Your task to perform on an android device: turn on location history Image 0: 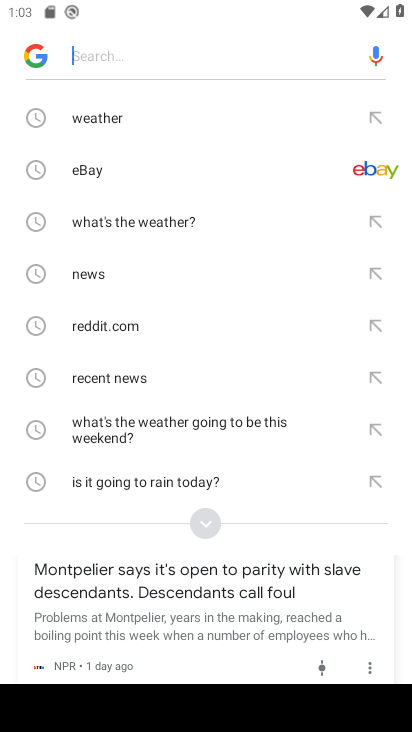
Step 0: press home button
Your task to perform on an android device: turn on location history Image 1: 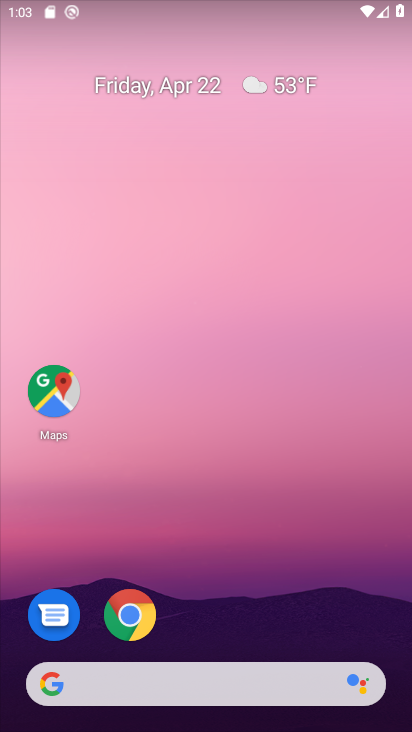
Step 1: drag from (149, 727) to (12, 178)
Your task to perform on an android device: turn on location history Image 2: 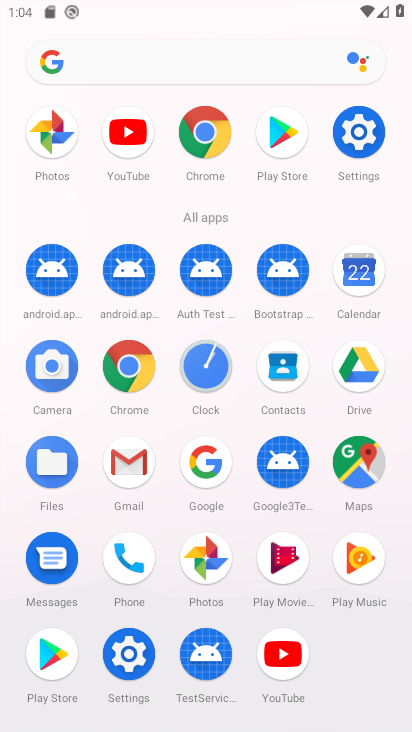
Step 2: click (365, 137)
Your task to perform on an android device: turn on location history Image 3: 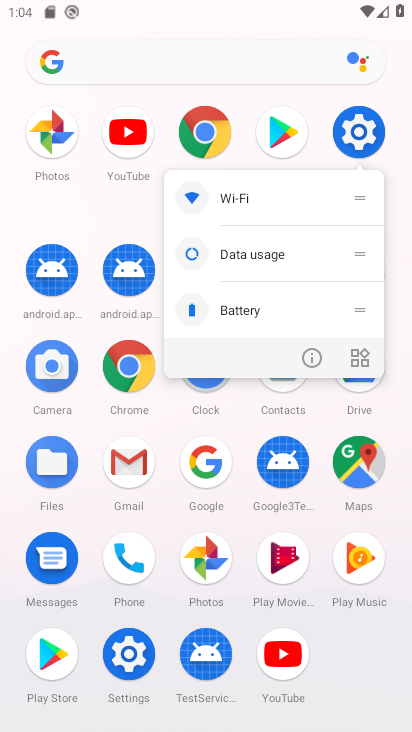
Step 3: click (366, 121)
Your task to perform on an android device: turn on location history Image 4: 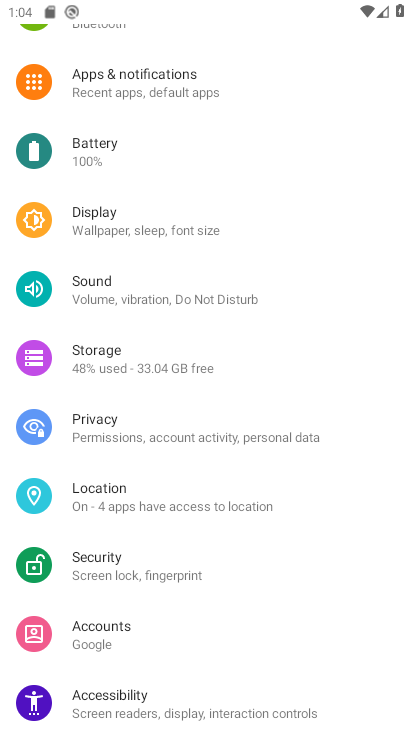
Step 4: click (366, 121)
Your task to perform on an android device: turn on location history Image 5: 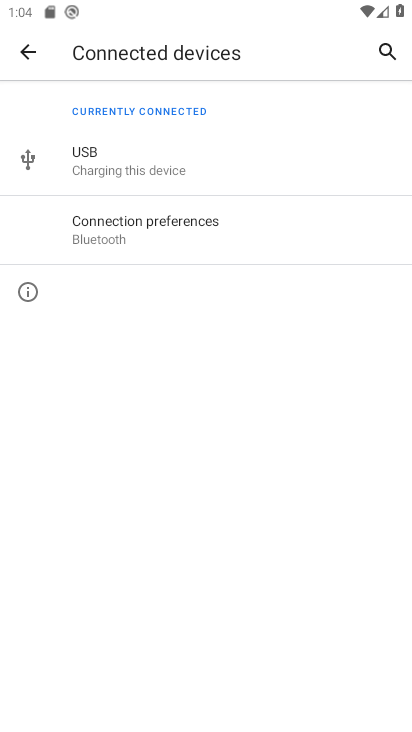
Step 5: press back button
Your task to perform on an android device: turn on location history Image 6: 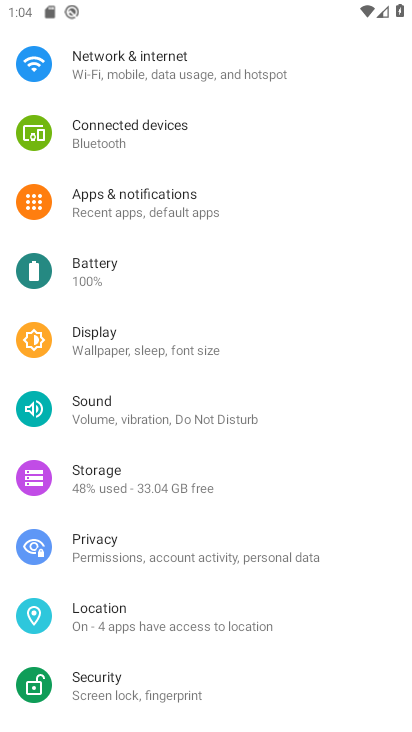
Step 6: click (184, 628)
Your task to perform on an android device: turn on location history Image 7: 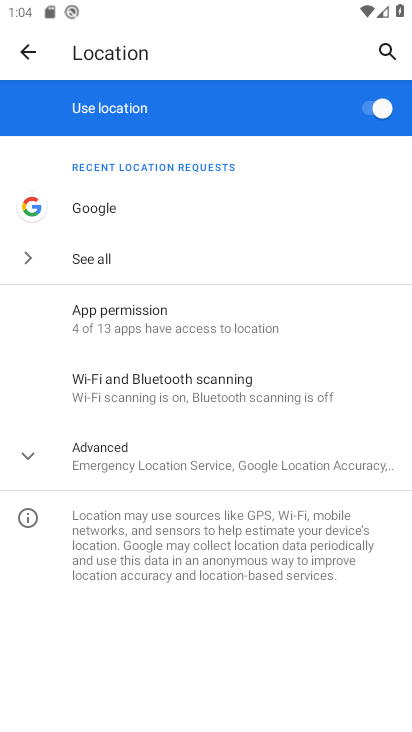
Step 7: task complete